Your task to perform on an android device: Go to Maps Image 0: 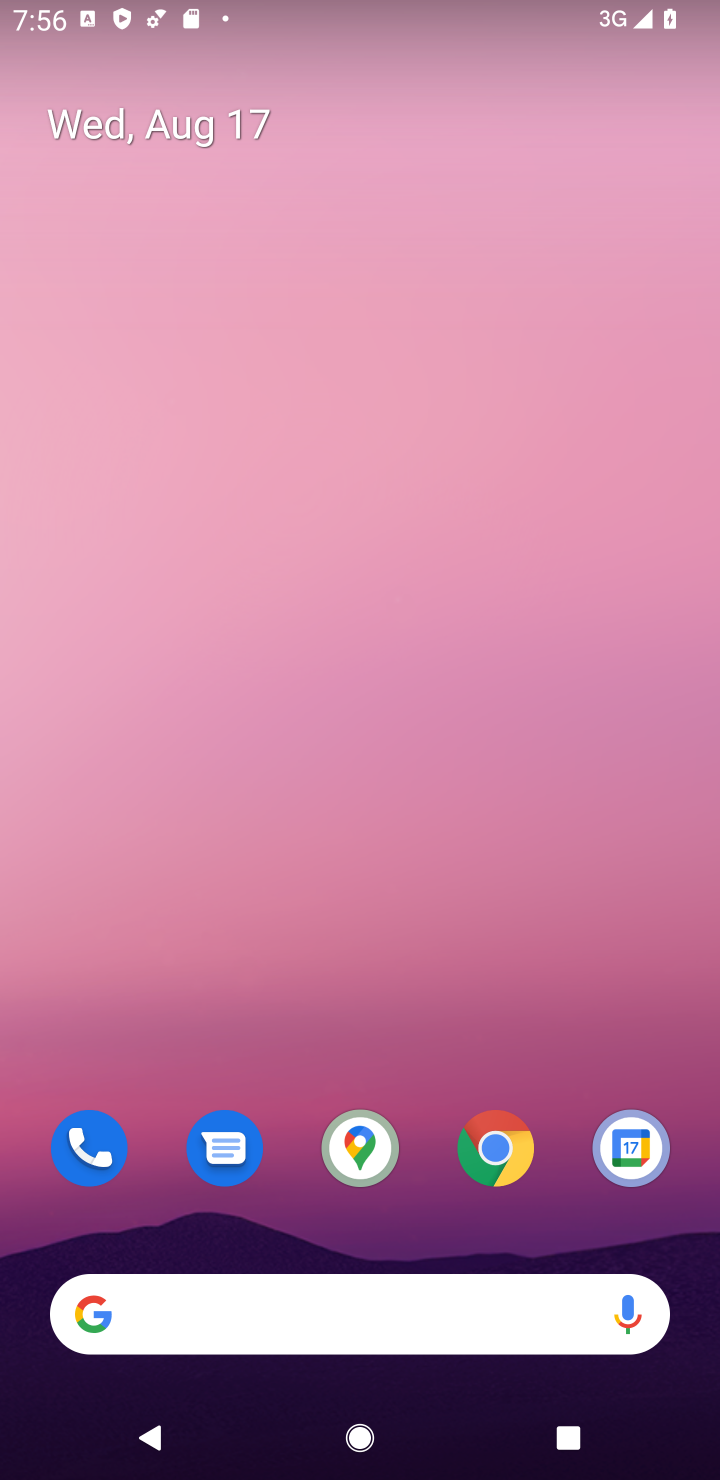
Step 0: click (360, 1145)
Your task to perform on an android device: Go to Maps Image 1: 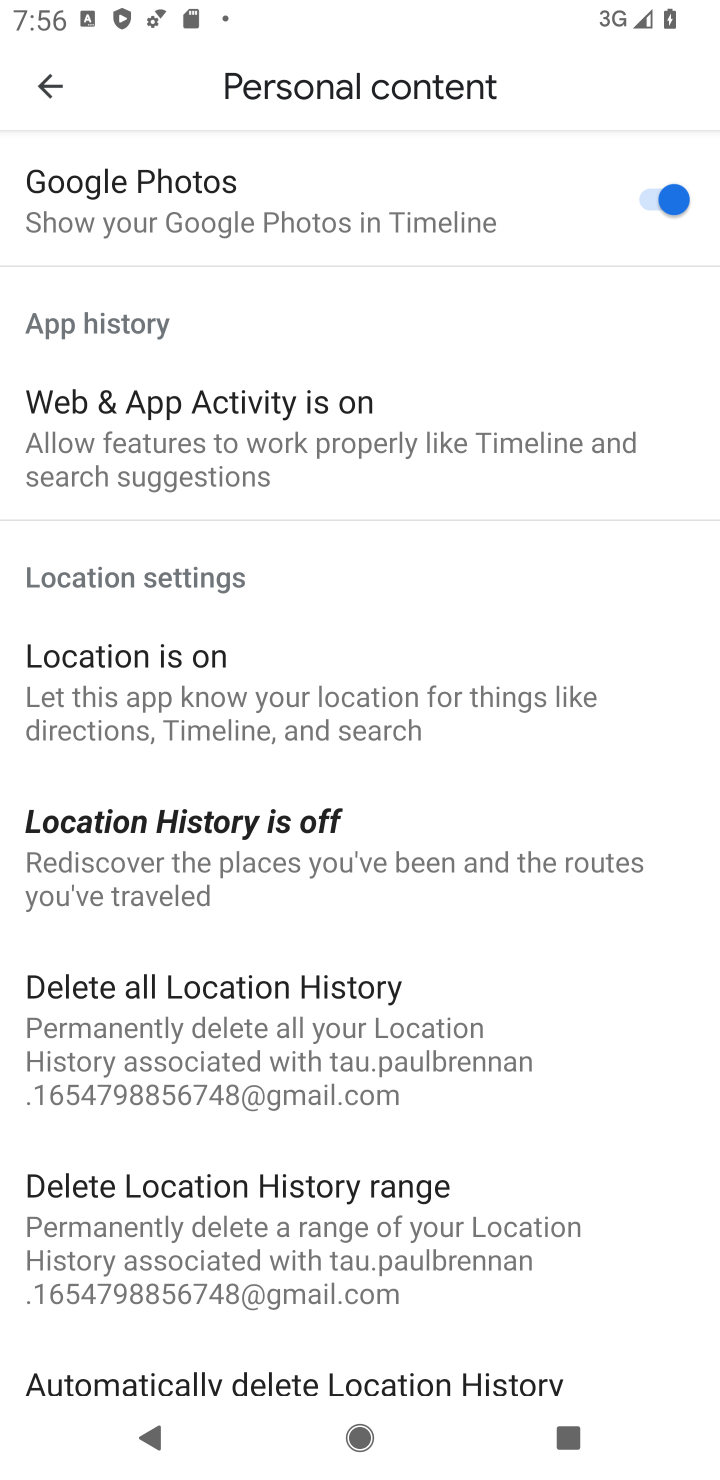
Step 1: task complete